Your task to perform on an android device: turn on wifi Image 0: 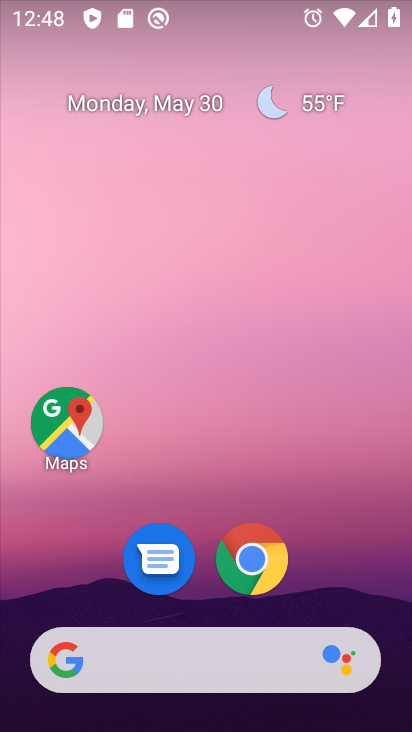
Step 0: drag from (144, 12) to (141, 479)
Your task to perform on an android device: turn on wifi Image 1: 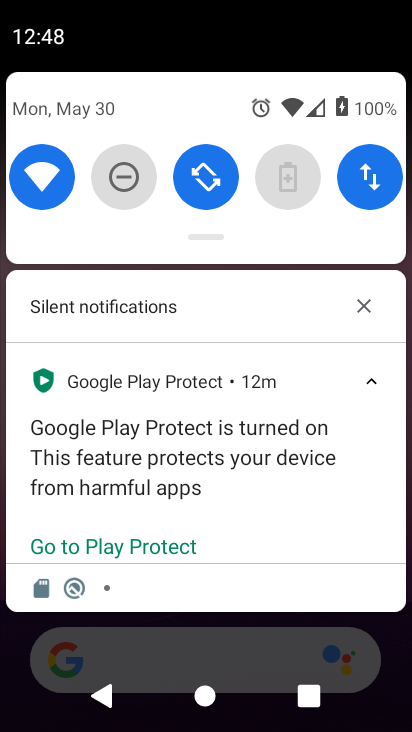
Step 1: task complete